Your task to perform on an android device: Is it going to rain tomorrow? Image 0: 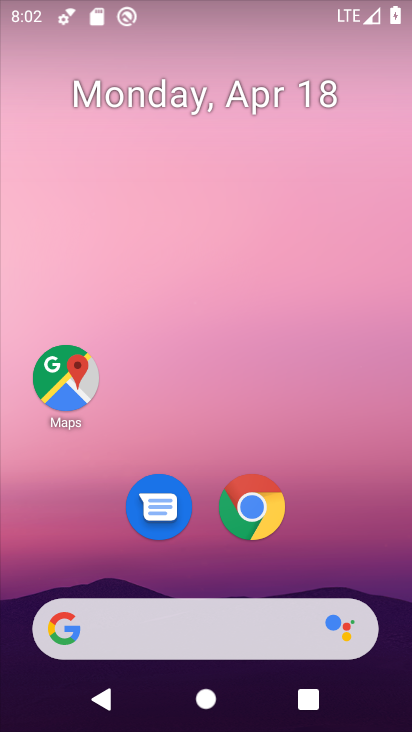
Step 0: drag from (14, 550) to (193, 105)
Your task to perform on an android device: Is it going to rain tomorrow? Image 1: 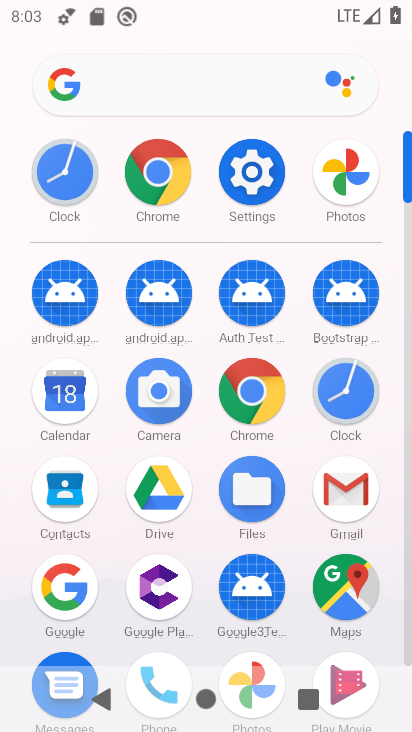
Step 1: task complete